Your task to perform on an android device: Play the last video I watched on Youtube Image 0: 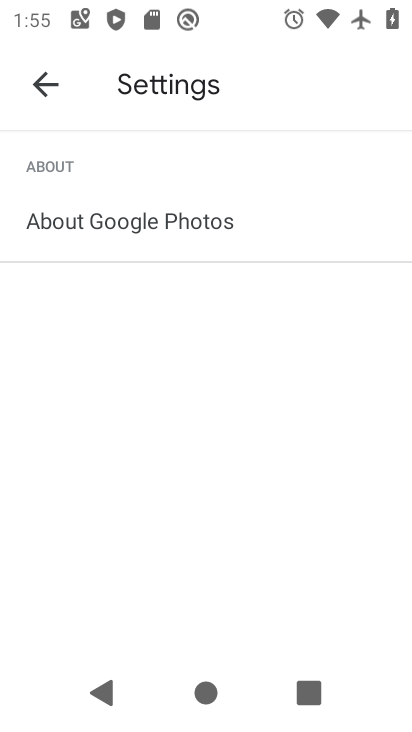
Step 0: press home button
Your task to perform on an android device: Play the last video I watched on Youtube Image 1: 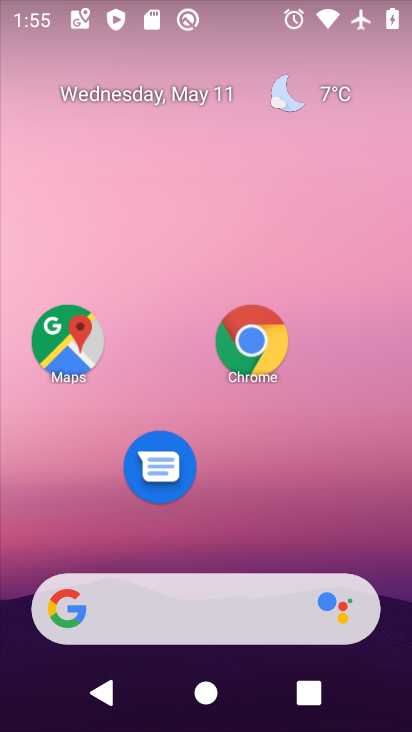
Step 1: drag from (205, 621) to (294, 184)
Your task to perform on an android device: Play the last video I watched on Youtube Image 2: 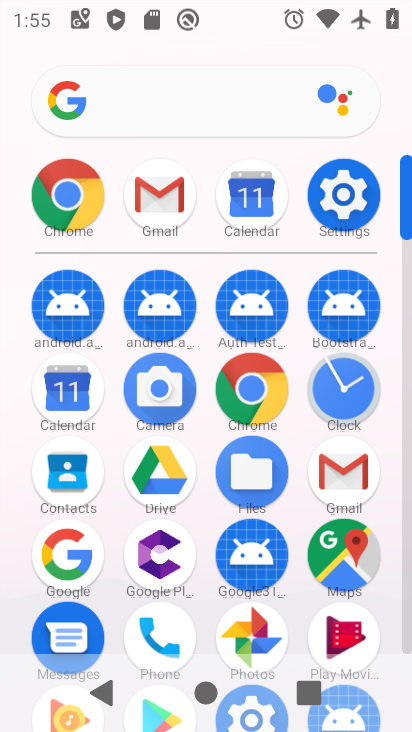
Step 2: drag from (208, 665) to (297, 218)
Your task to perform on an android device: Play the last video I watched on Youtube Image 3: 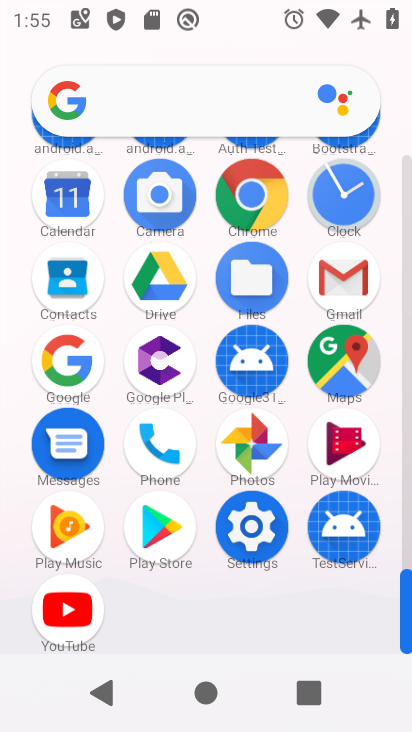
Step 3: click (64, 613)
Your task to perform on an android device: Play the last video I watched on Youtube Image 4: 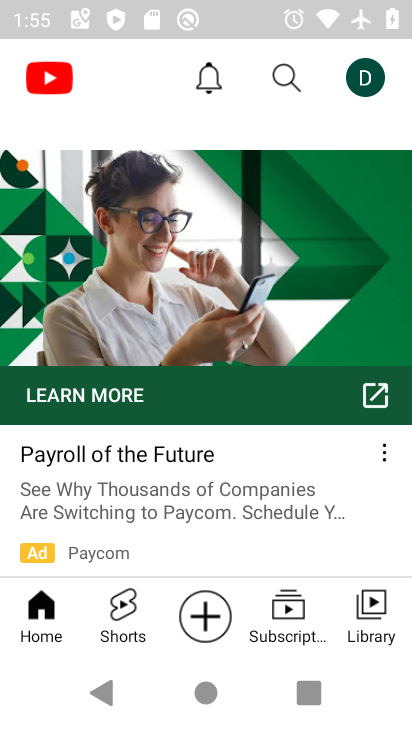
Step 4: click (381, 601)
Your task to perform on an android device: Play the last video I watched on Youtube Image 5: 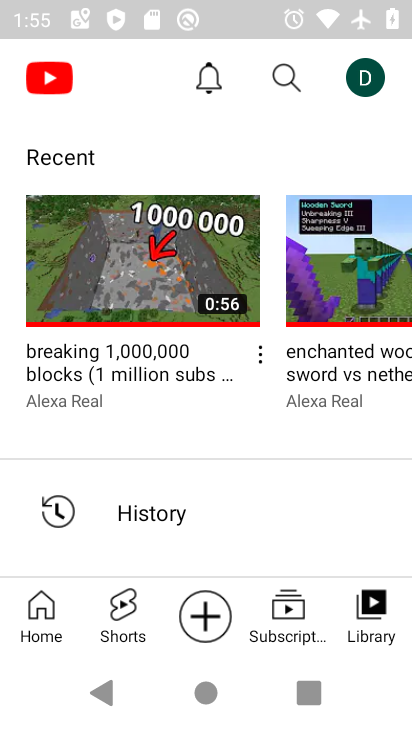
Step 5: click (110, 288)
Your task to perform on an android device: Play the last video I watched on Youtube Image 6: 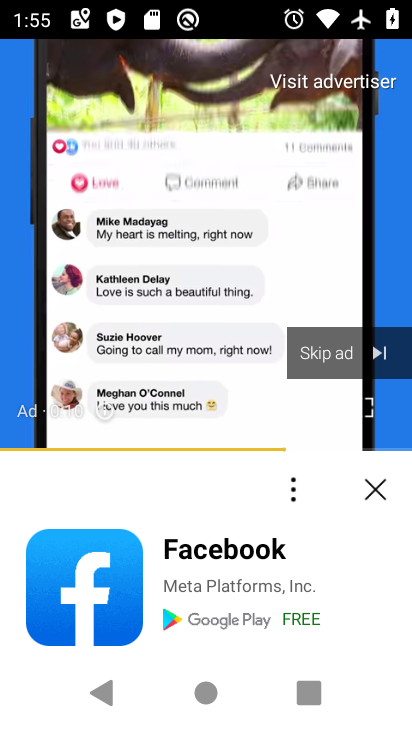
Step 6: click (215, 256)
Your task to perform on an android device: Play the last video I watched on Youtube Image 7: 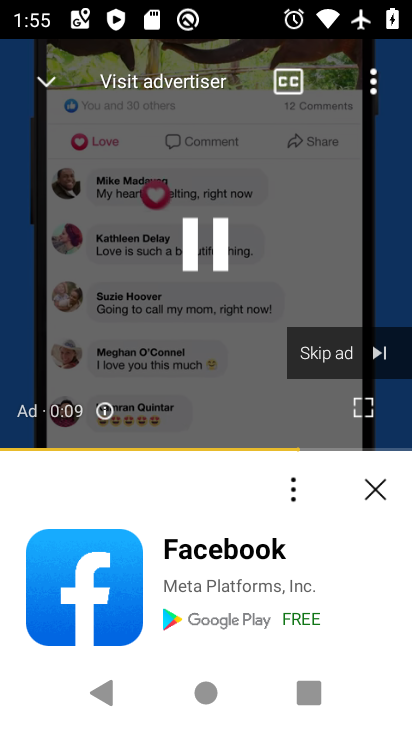
Step 7: click (213, 254)
Your task to perform on an android device: Play the last video I watched on Youtube Image 8: 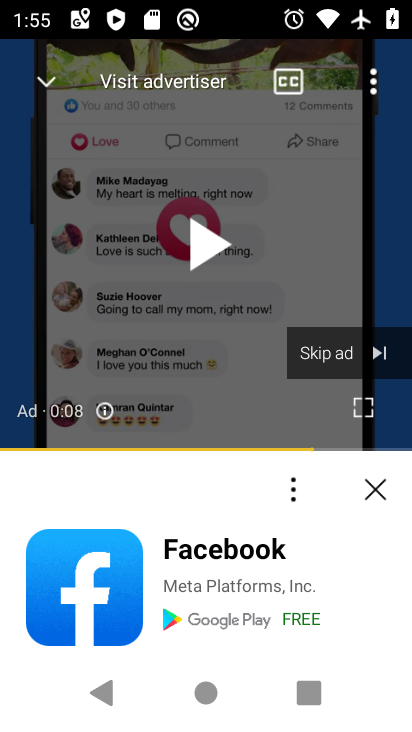
Step 8: task complete